Your task to perform on an android device: turn on data saver in the chrome app Image 0: 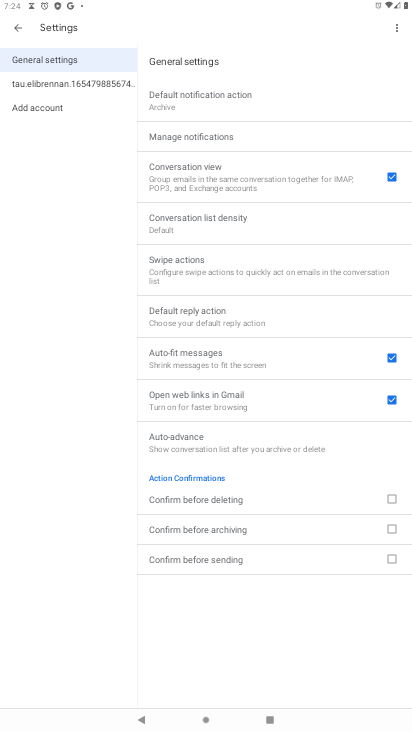
Step 0: press home button
Your task to perform on an android device: turn on data saver in the chrome app Image 1: 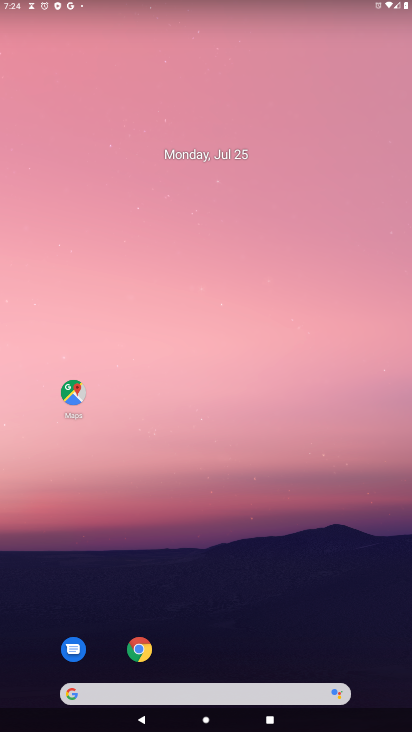
Step 1: drag from (267, 697) to (248, 35)
Your task to perform on an android device: turn on data saver in the chrome app Image 2: 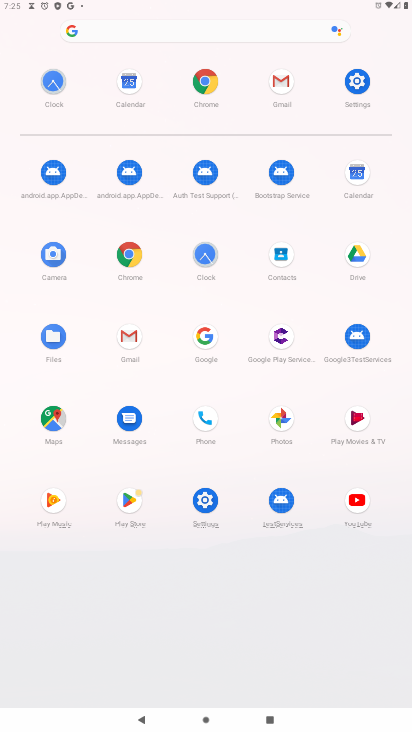
Step 2: click (125, 249)
Your task to perform on an android device: turn on data saver in the chrome app Image 3: 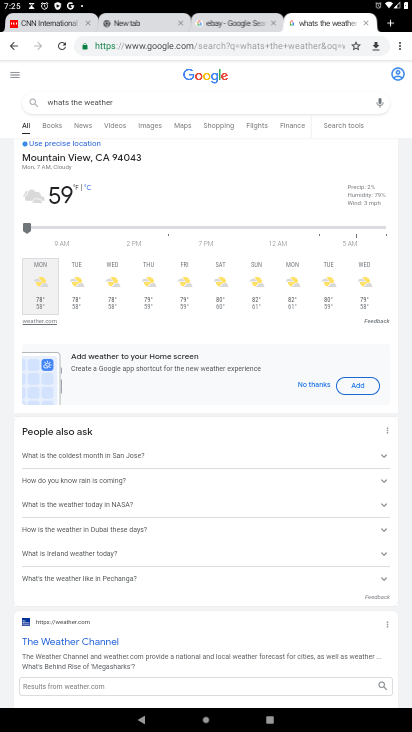
Step 3: drag from (405, 44) to (304, 281)
Your task to perform on an android device: turn on data saver in the chrome app Image 4: 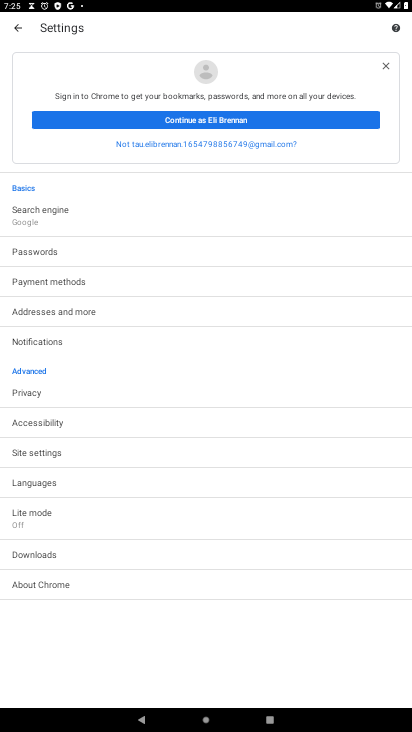
Step 4: click (62, 516)
Your task to perform on an android device: turn on data saver in the chrome app Image 5: 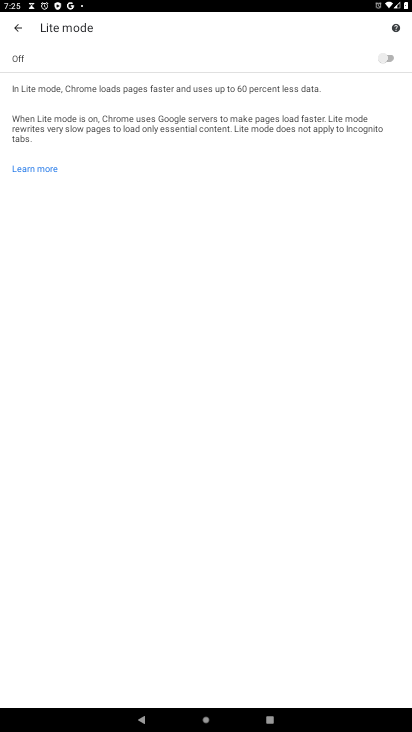
Step 5: click (394, 54)
Your task to perform on an android device: turn on data saver in the chrome app Image 6: 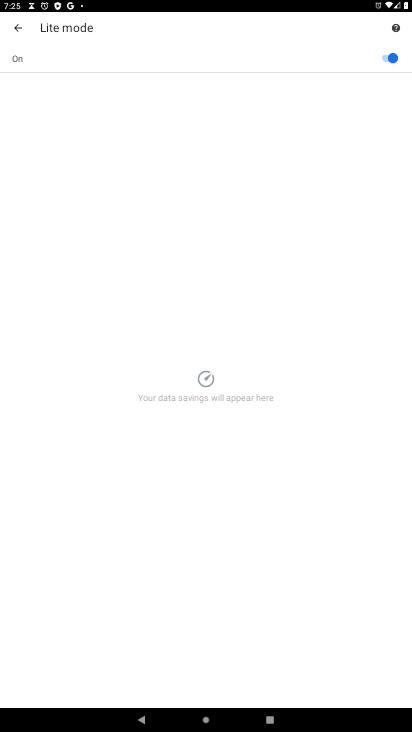
Step 6: task complete